Your task to perform on an android device: change the clock display to digital Image 0: 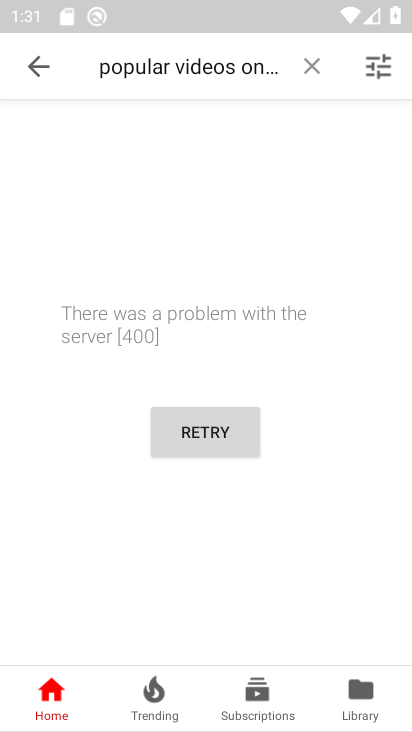
Step 0: press home button
Your task to perform on an android device: change the clock display to digital Image 1: 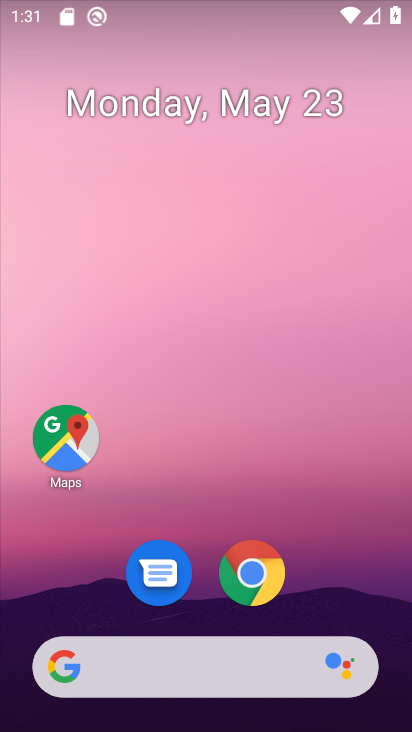
Step 1: drag from (312, 572) to (297, 81)
Your task to perform on an android device: change the clock display to digital Image 2: 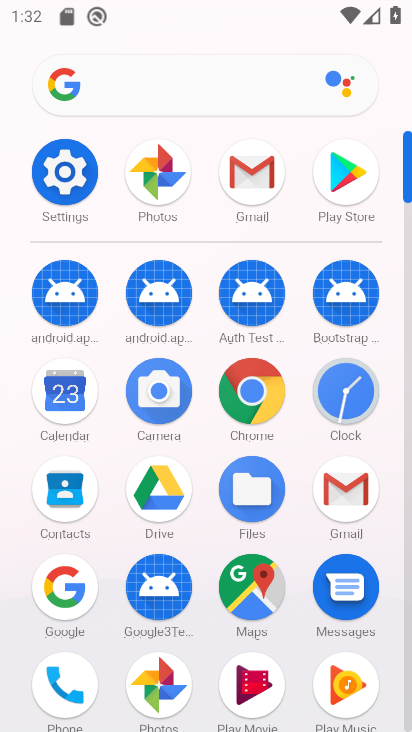
Step 2: click (65, 163)
Your task to perform on an android device: change the clock display to digital Image 3: 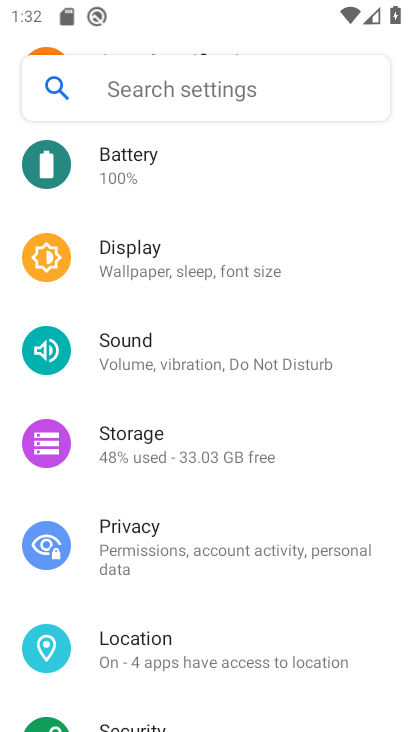
Step 3: press home button
Your task to perform on an android device: change the clock display to digital Image 4: 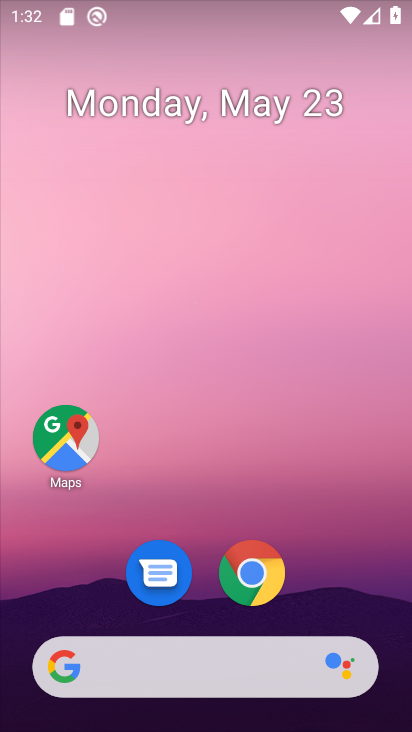
Step 4: drag from (330, 601) to (319, 64)
Your task to perform on an android device: change the clock display to digital Image 5: 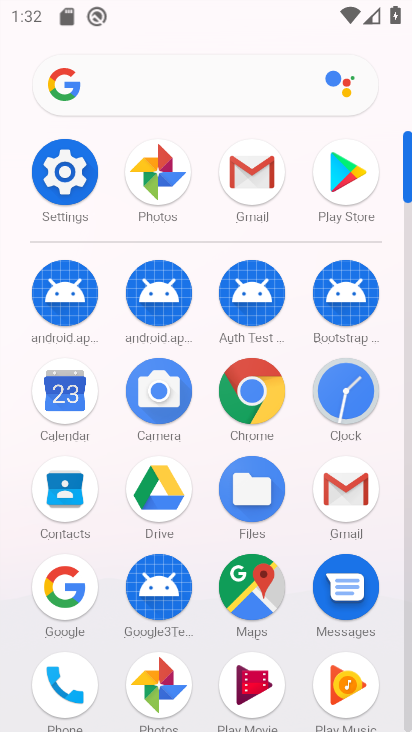
Step 5: click (353, 400)
Your task to perform on an android device: change the clock display to digital Image 6: 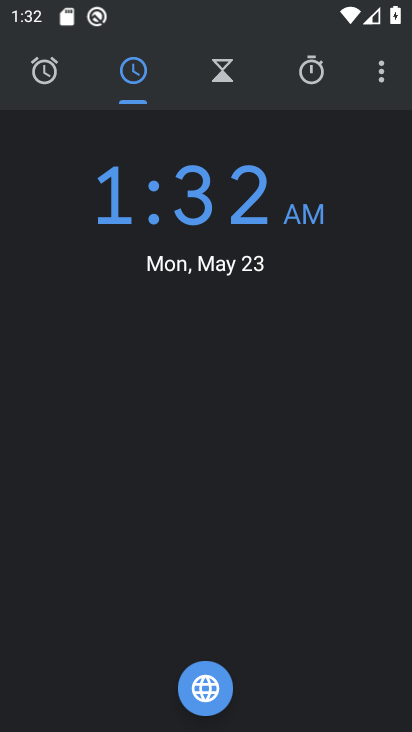
Step 6: click (383, 71)
Your task to perform on an android device: change the clock display to digital Image 7: 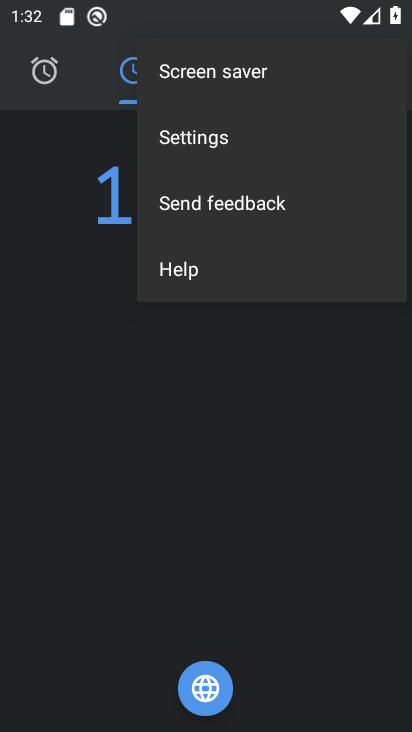
Step 7: click (234, 136)
Your task to perform on an android device: change the clock display to digital Image 8: 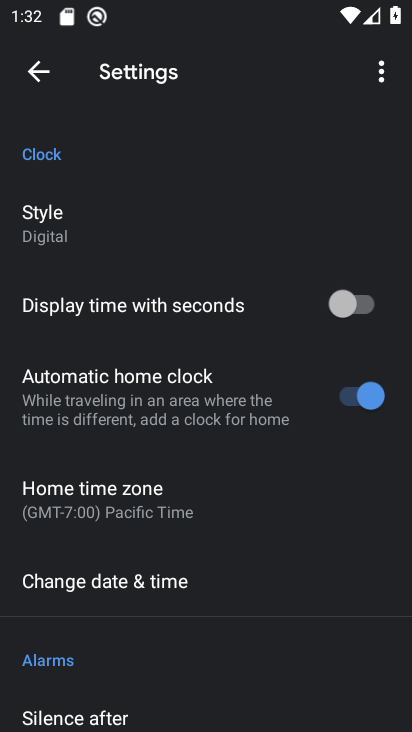
Step 8: click (63, 226)
Your task to perform on an android device: change the clock display to digital Image 9: 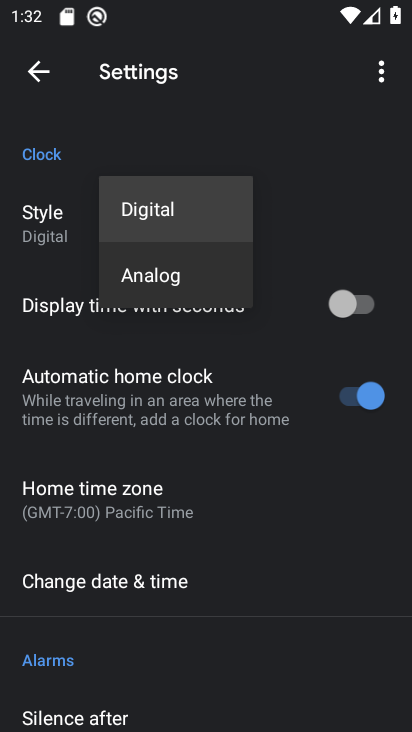
Step 9: click (170, 272)
Your task to perform on an android device: change the clock display to digital Image 10: 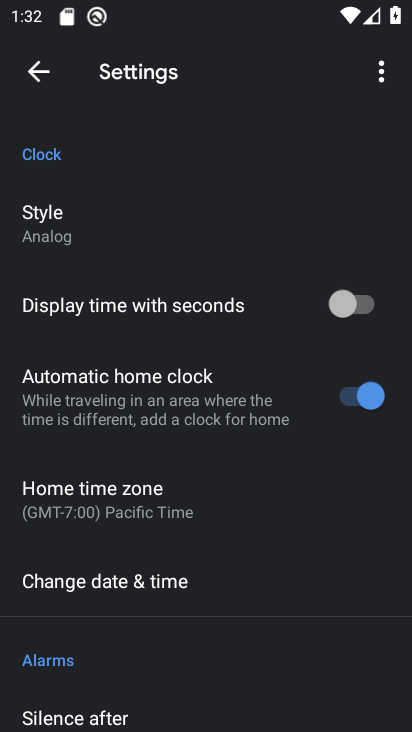
Step 10: task complete